Your task to perform on an android device: Go to notification settings Image 0: 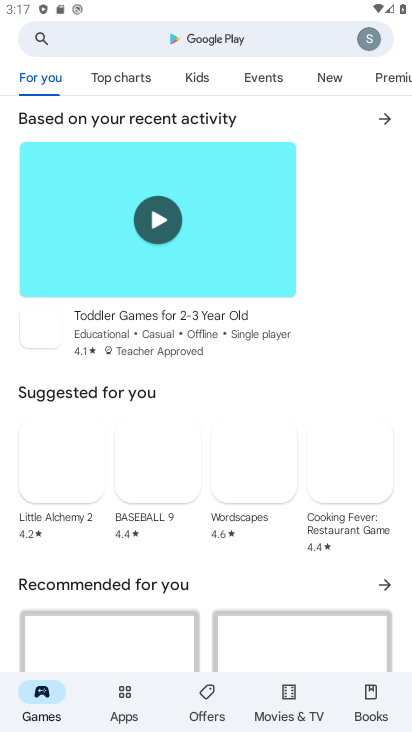
Step 0: press home button
Your task to perform on an android device: Go to notification settings Image 1: 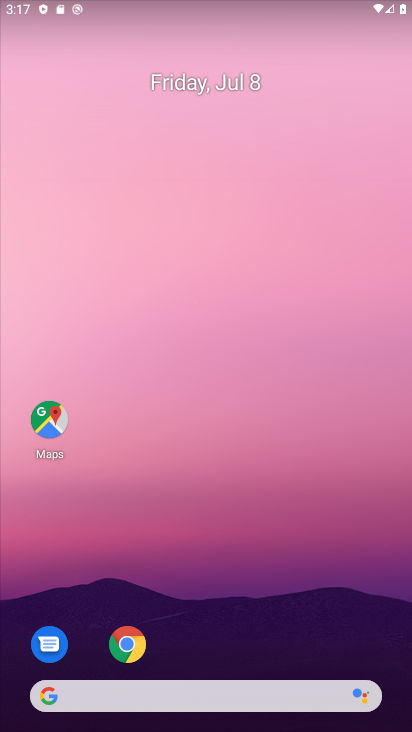
Step 1: drag from (185, 655) to (272, 96)
Your task to perform on an android device: Go to notification settings Image 2: 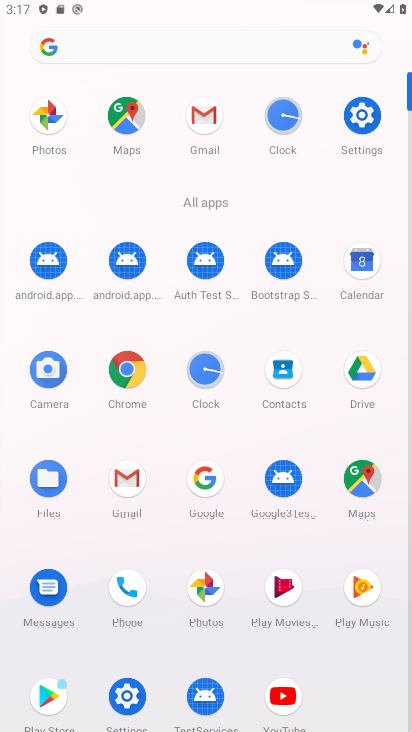
Step 2: click (115, 702)
Your task to perform on an android device: Go to notification settings Image 3: 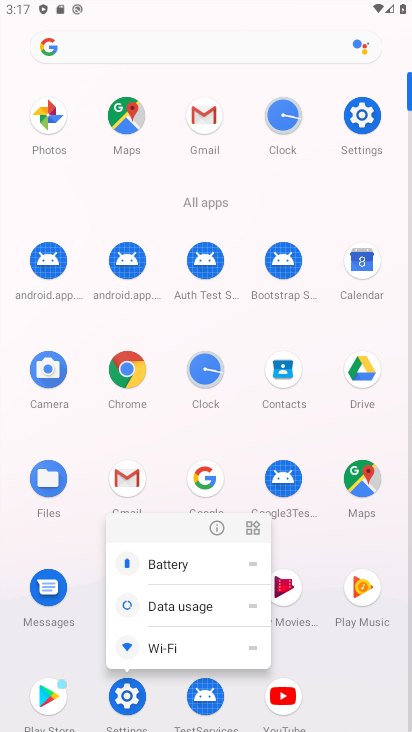
Step 3: click (117, 702)
Your task to perform on an android device: Go to notification settings Image 4: 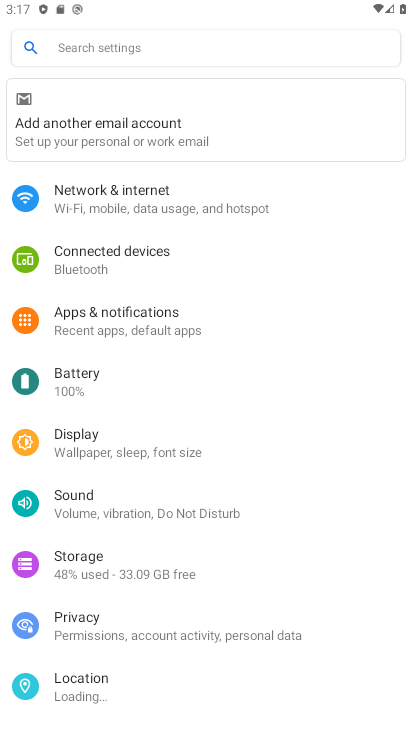
Step 4: click (169, 330)
Your task to perform on an android device: Go to notification settings Image 5: 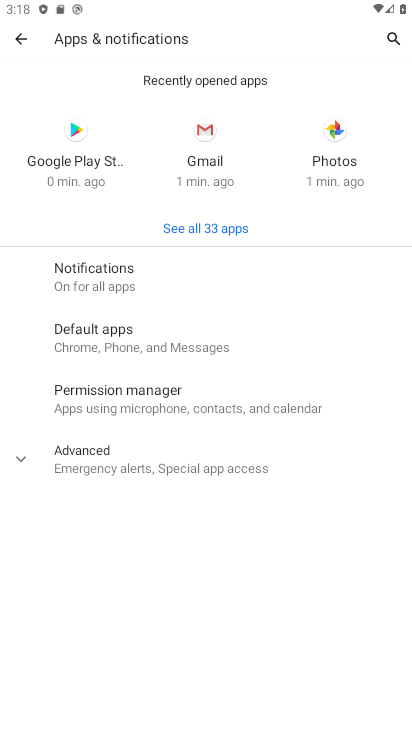
Step 5: click (126, 272)
Your task to perform on an android device: Go to notification settings Image 6: 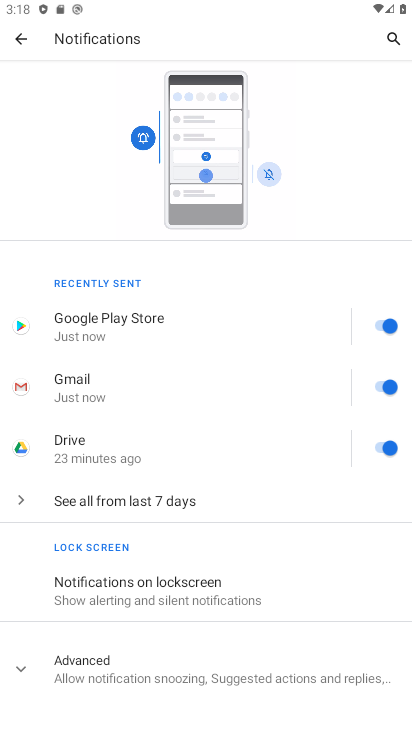
Step 6: task complete